Your task to perform on an android device: check out phone information Image 0: 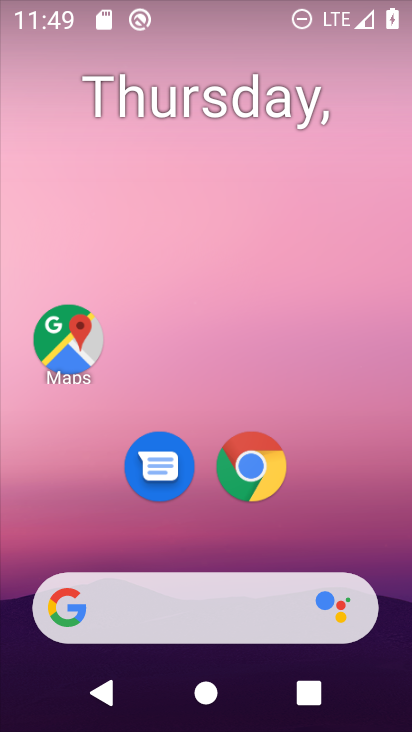
Step 0: drag from (258, 633) to (315, 108)
Your task to perform on an android device: check out phone information Image 1: 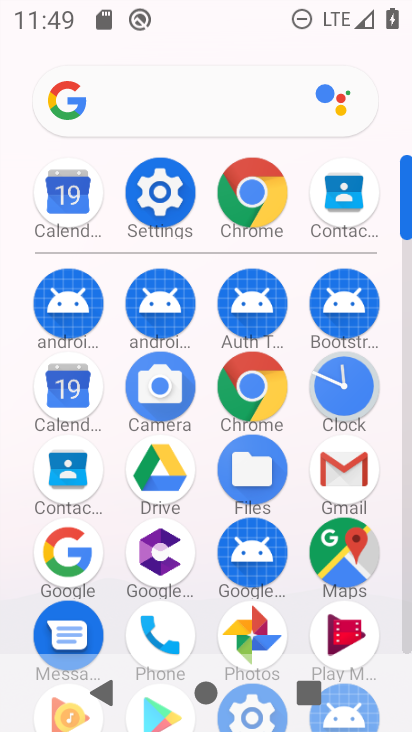
Step 1: drag from (286, 626) to (291, 180)
Your task to perform on an android device: check out phone information Image 2: 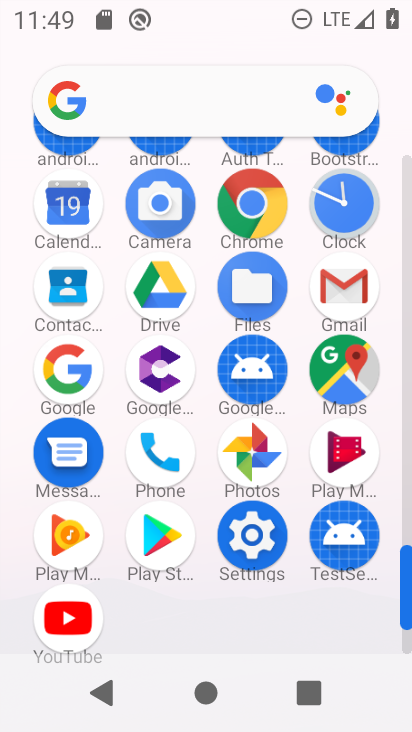
Step 2: click (260, 539)
Your task to perform on an android device: check out phone information Image 3: 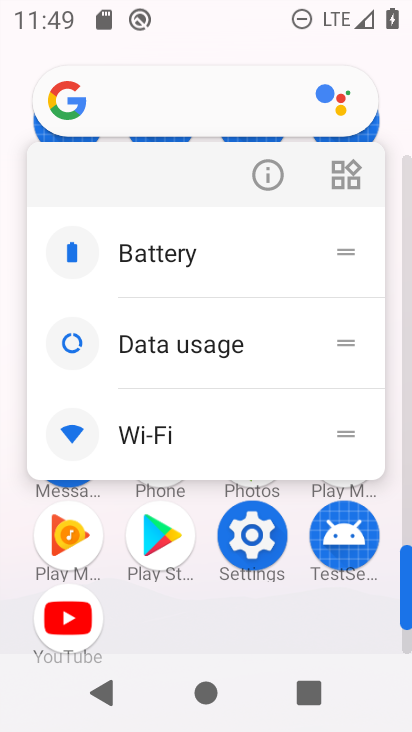
Step 3: click (263, 541)
Your task to perform on an android device: check out phone information Image 4: 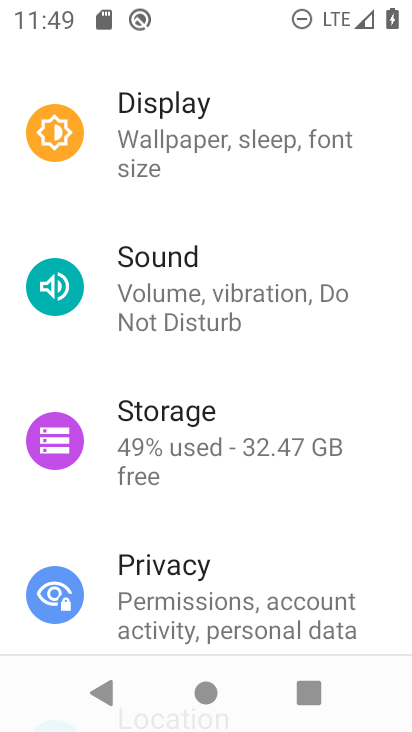
Step 4: drag from (286, 652) to (324, 149)
Your task to perform on an android device: check out phone information Image 5: 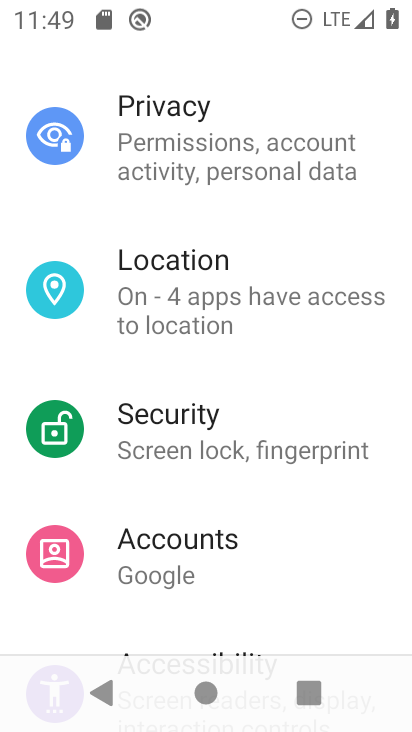
Step 5: drag from (294, 582) to (311, 179)
Your task to perform on an android device: check out phone information Image 6: 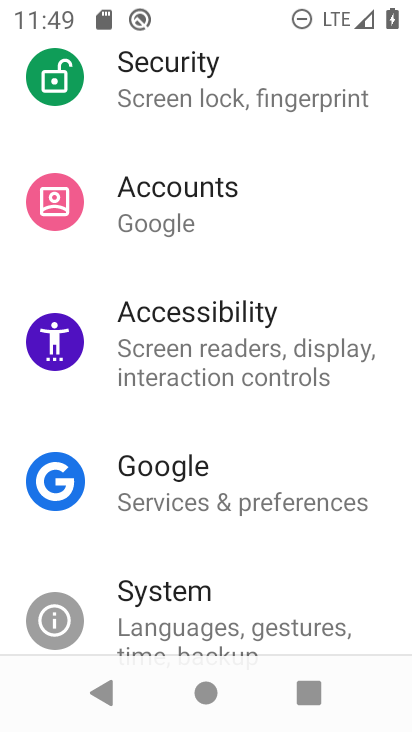
Step 6: drag from (293, 613) to (334, 185)
Your task to perform on an android device: check out phone information Image 7: 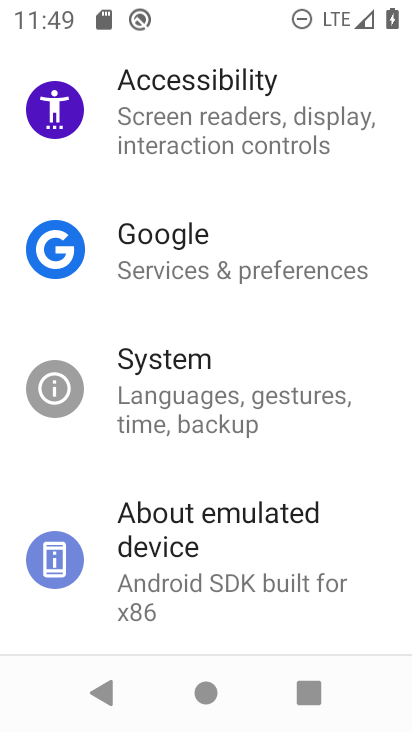
Step 7: click (283, 542)
Your task to perform on an android device: check out phone information Image 8: 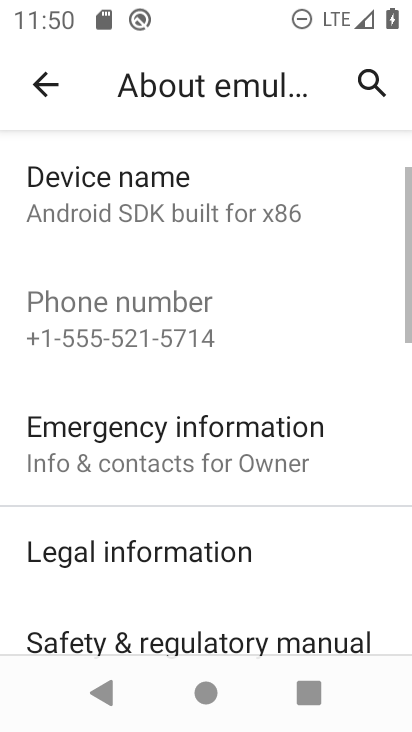
Step 8: task complete